Your task to perform on an android device: Open Chrome and go to the settings page Image 0: 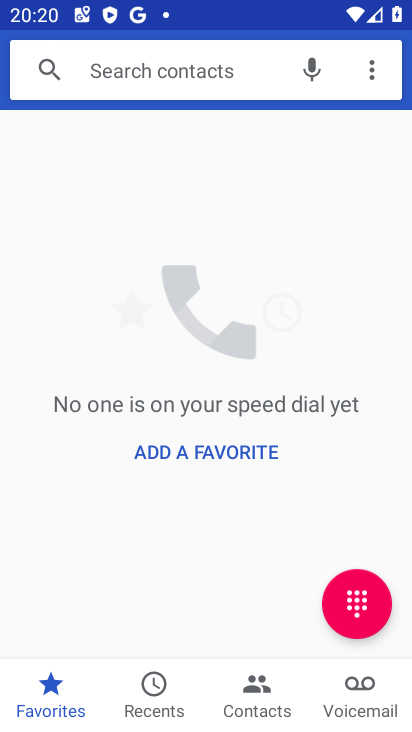
Step 0: press home button
Your task to perform on an android device: Open Chrome and go to the settings page Image 1: 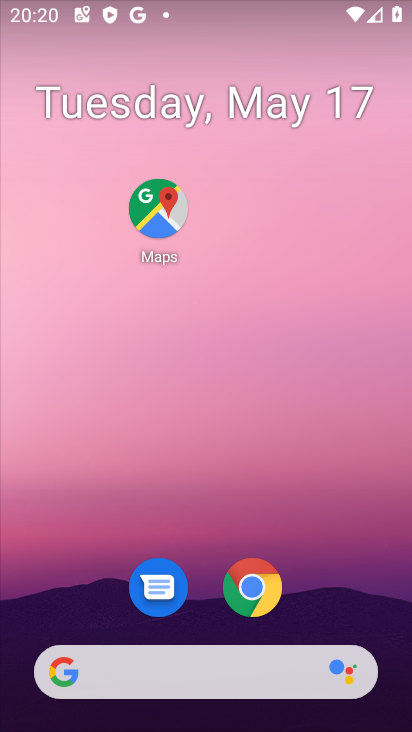
Step 1: click (234, 576)
Your task to perform on an android device: Open Chrome and go to the settings page Image 2: 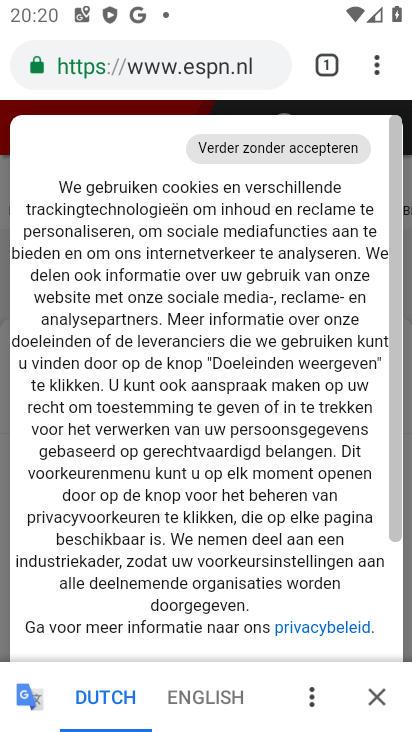
Step 2: click (375, 63)
Your task to perform on an android device: Open Chrome and go to the settings page Image 3: 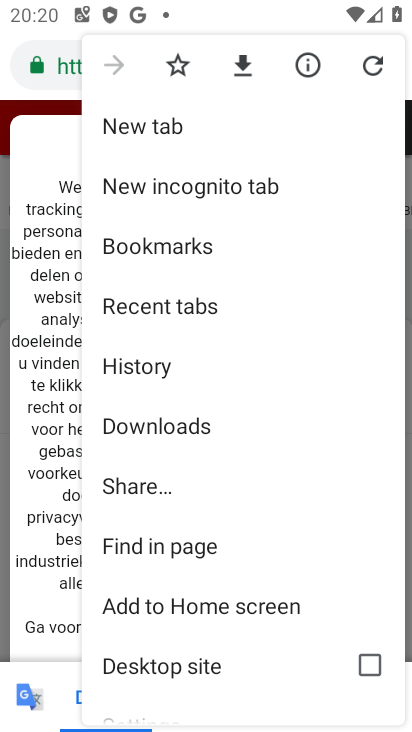
Step 3: drag from (91, 600) to (242, 161)
Your task to perform on an android device: Open Chrome and go to the settings page Image 4: 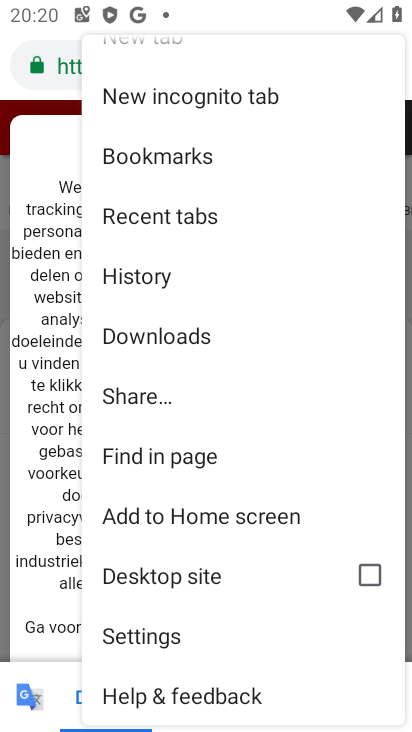
Step 4: click (191, 631)
Your task to perform on an android device: Open Chrome and go to the settings page Image 5: 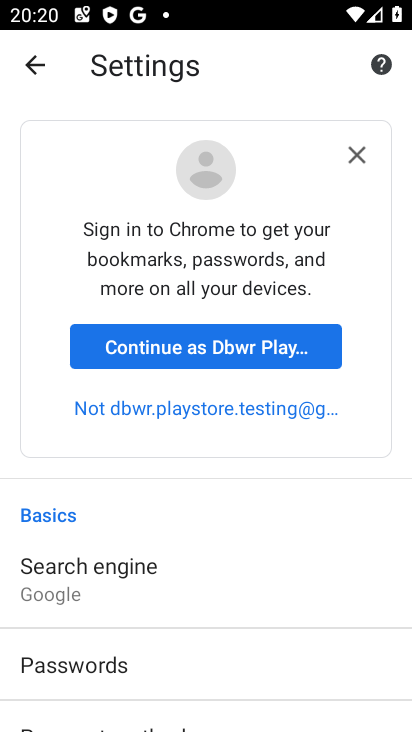
Step 5: task complete